Your task to perform on an android device: Go to calendar. Show me events next week Image 0: 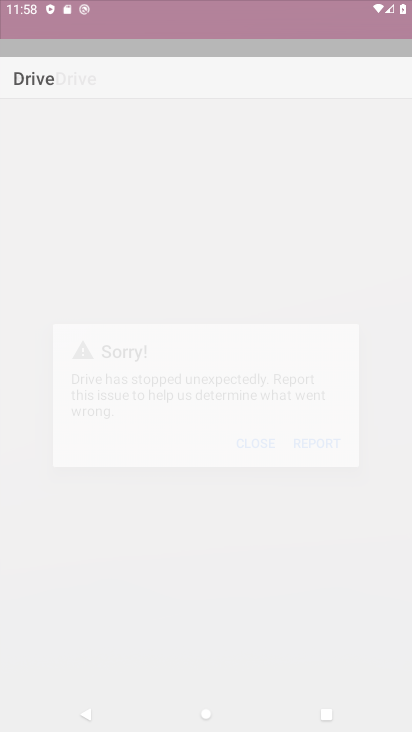
Step 0: click (357, 674)
Your task to perform on an android device: Go to calendar. Show me events next week Image 1: 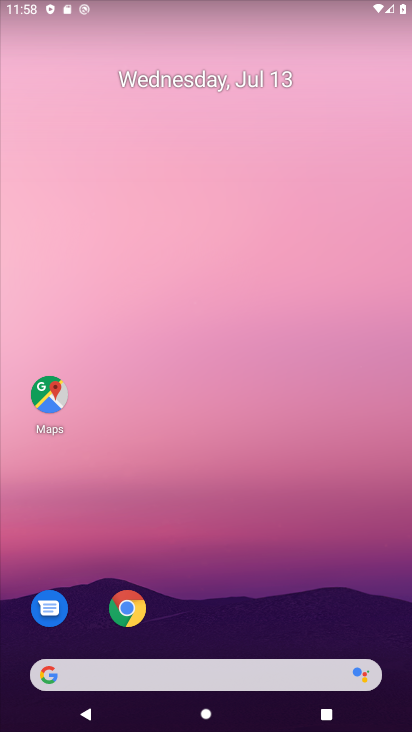
Step 1: drag from (257, 693) to (95, 23)
Your task to perform on an android device: Go to calendar. Show me events next week Image 2: 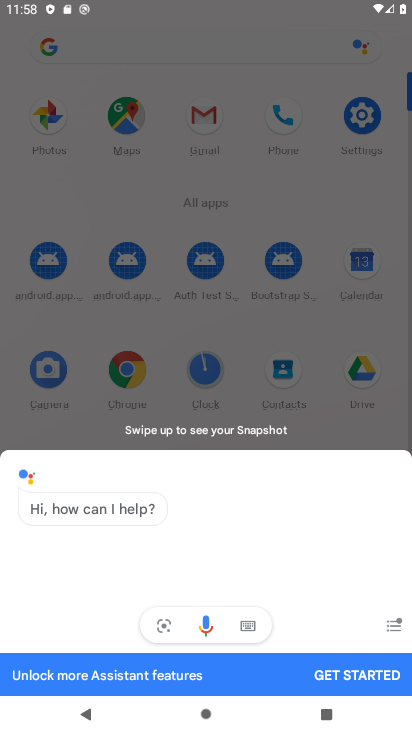
Step 2: click (230, 323)
Your task to perform on an android device: Go to calendar. Show me events next week Image 3: 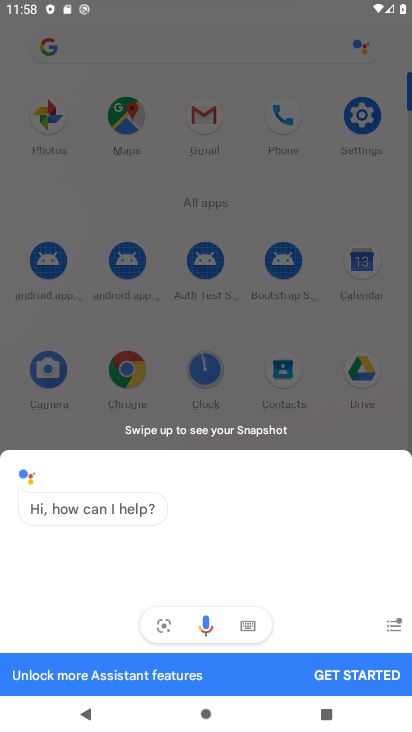
Step 3: click (232, 325)
Your task to perform on an android device: Go to calendar. Show me events next week Image 4: 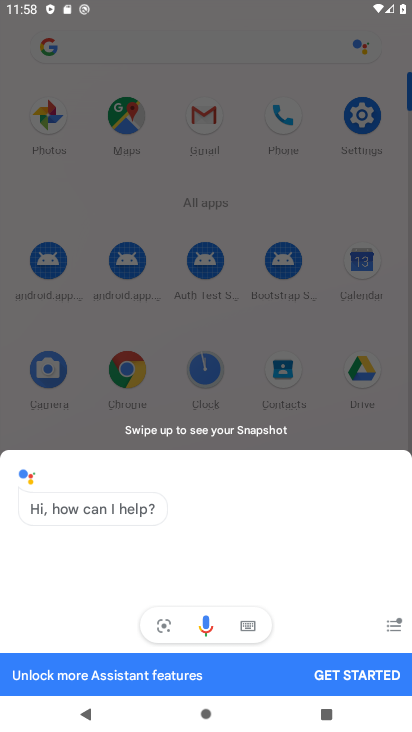
Step 4: click (232, 325)
Your task to perform on an android device: Go to calendar. Show me events next week Image 5: 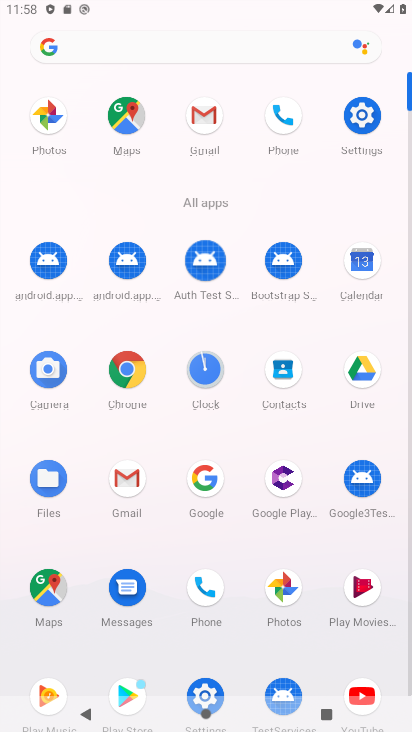
Step 5: click (234, 329)
Your task to perform on an android device: Go to calendar. Show me events next week Image 6: 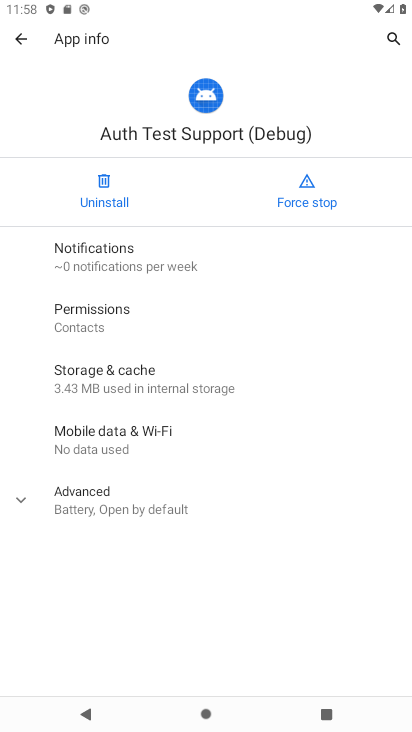
Step 6: click (23, 41)
Your task to perform on an android device: Go to calendar. Show me events next week Image 7: 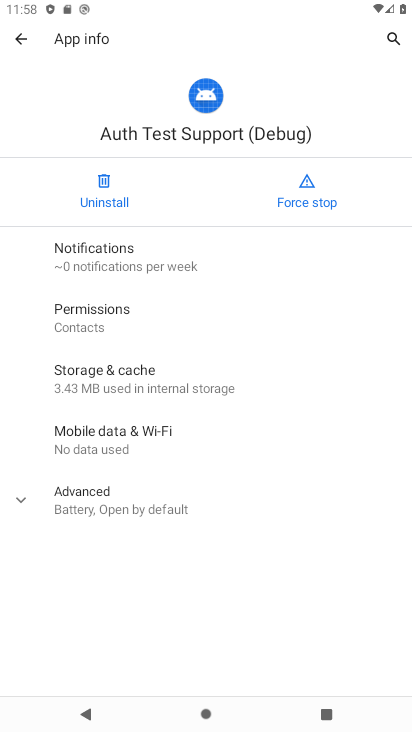
Step 7: click (23, 41)
Your task to perform on an android device: Go to calendar. Show me events next week Image 8: 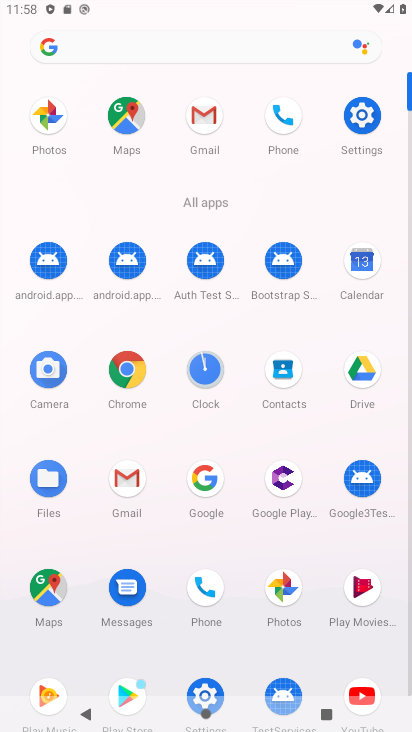
Step 8: click (357, 261)
Your task to perform on an android device: Go to calendar. Show me events next week Image 9: 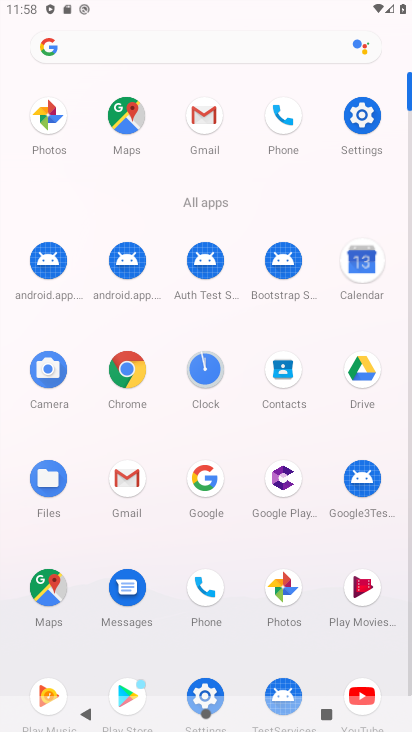
Step 9: click (358, 262)
Your task to perform on an android device: Go to calendar. Show me events next week Image 10: 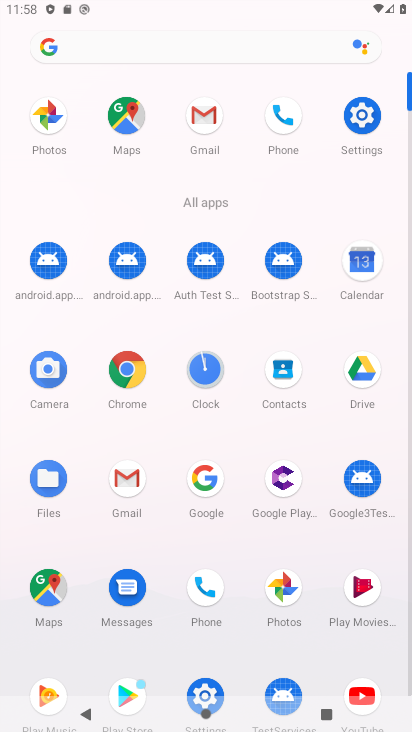
Step 10: click (359, 262)
Your task to perform on an android device: Go to calendar. Show me events next week Image 11: 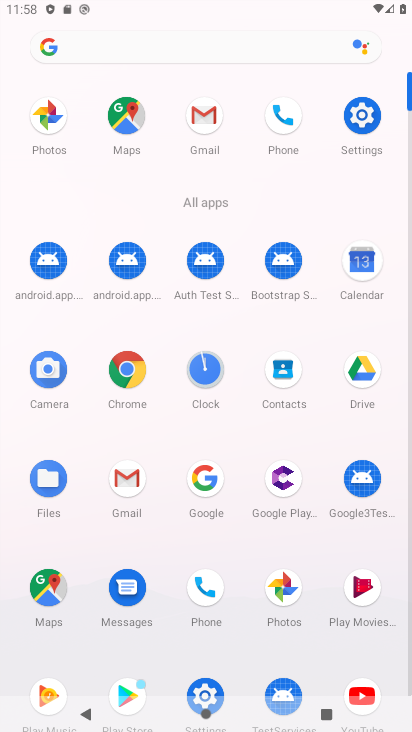
Step 11: click (360, 263)
Your task to perform on an android device: Go to calendar. Show me events next week Image 12: 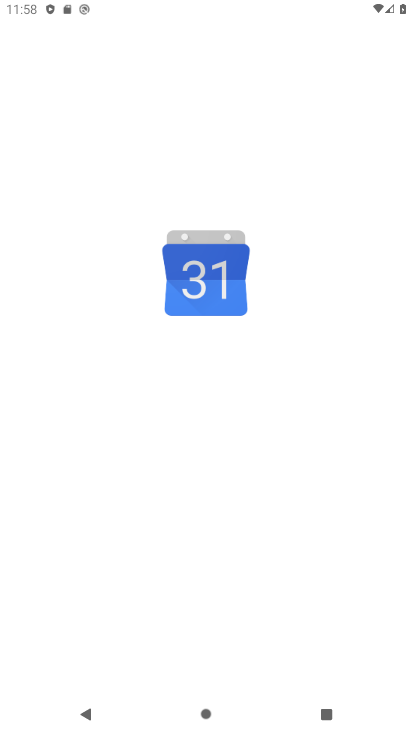
Step 12: click (361, 263)
Your task to perform on an android device: Go to calendar. Show me events next week Image 13: 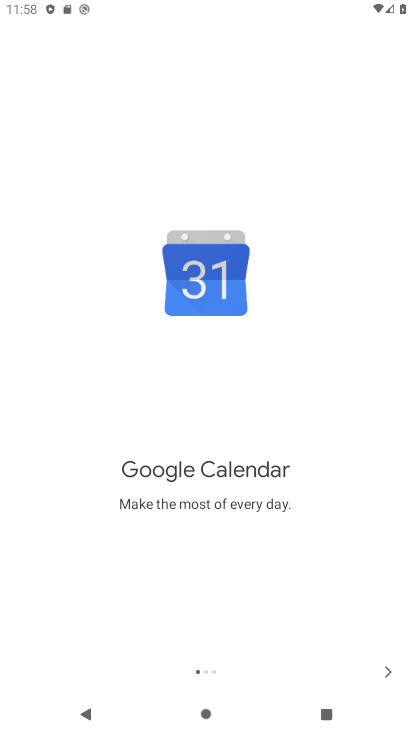
Step 13: click (386, 667)
Your task to perform on an android device: Go to calendar. Show me events next week Image 14: 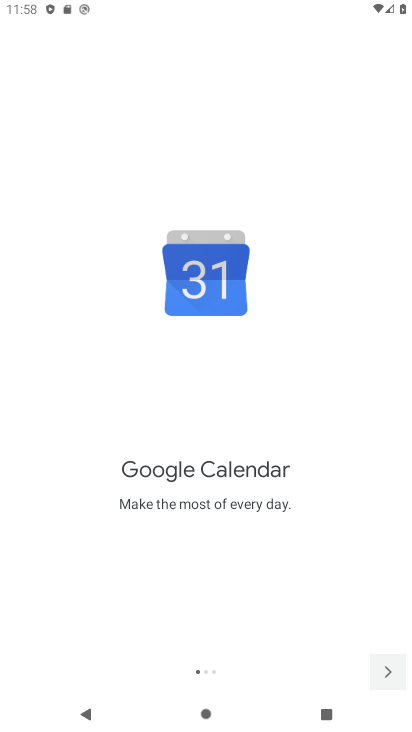
Step 14: click (386, 667)
Your task to perform on an android device: Go to calendar. Show me events next week Image 15: 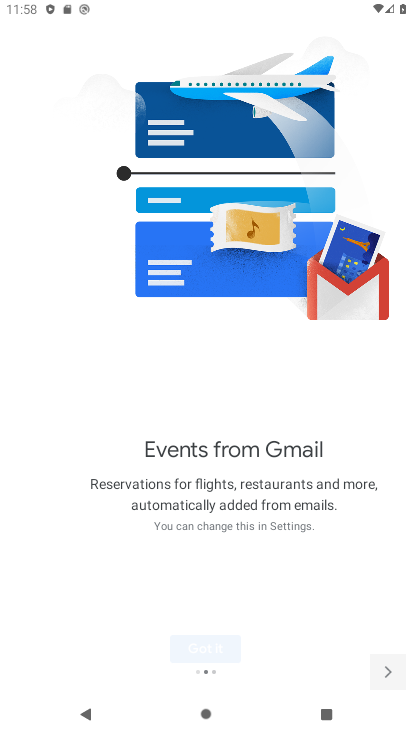
Step 15: click (386, 667)
Your task to perform on an android device: Go to calendar. Show me events next week Image 16: 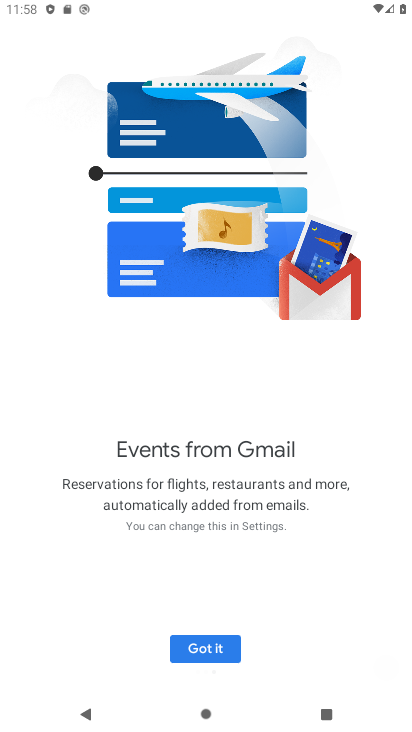
Step 16: click (386, 667)
Your task to perform on an android device: Go to calendar. Show me events next week Image 17: 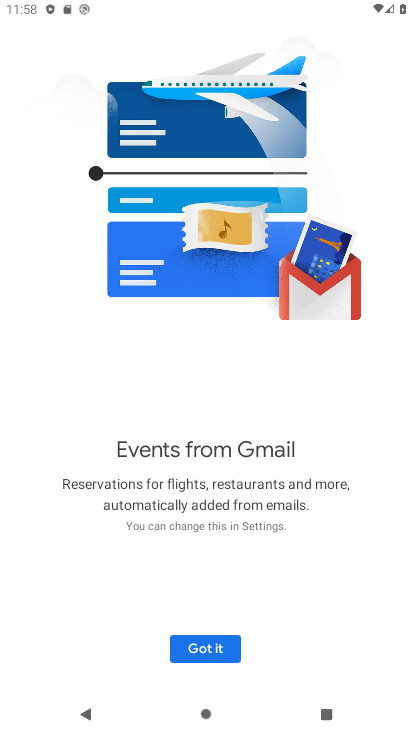
Step 17: click (386, 667)
Your task to perform on an android device: Go to calendar. Show me events next week Image 18: 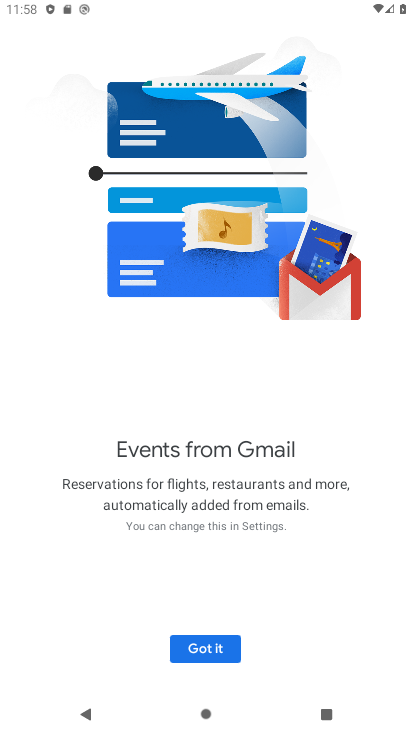
Step 18: click (386, 667)
Your task to perform on an android device: Go to calendar. Show me events next week Image 19: 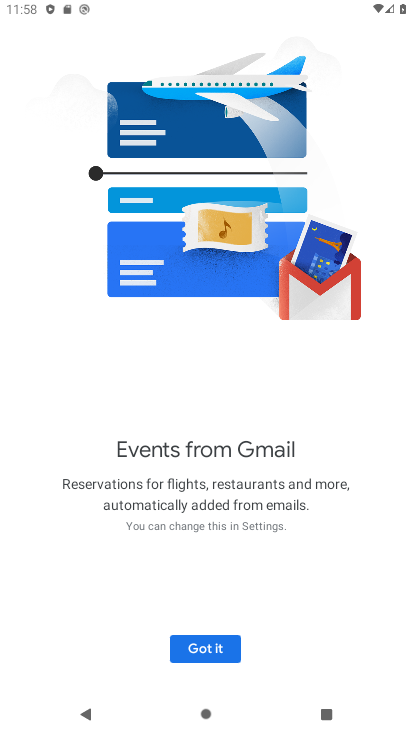
Step 19: click (189, 637)
Your task to perform on an android device: Go to calendar. Show me events next week Image 20: 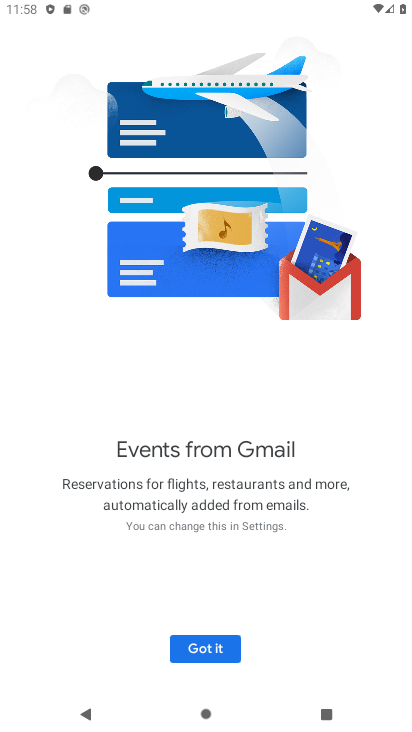
Step 20: click (189, 638)
Your task to perform on an android device: Go to calendar. Show me events next week Image 21: 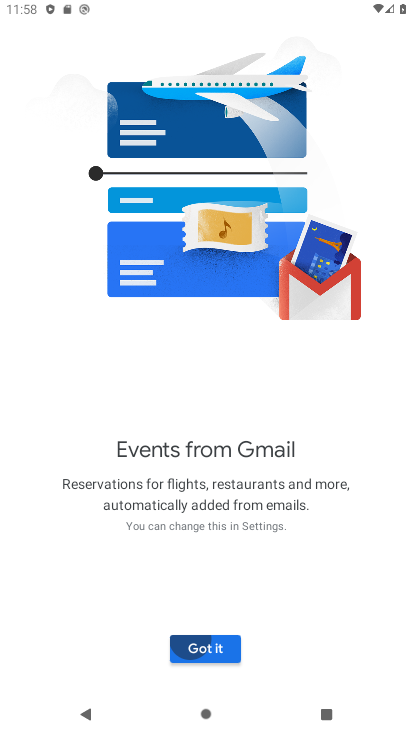
Step 21: click (198, 638)
Your task to perform on an android device: Go to calendar. Show me events next week Image 22: 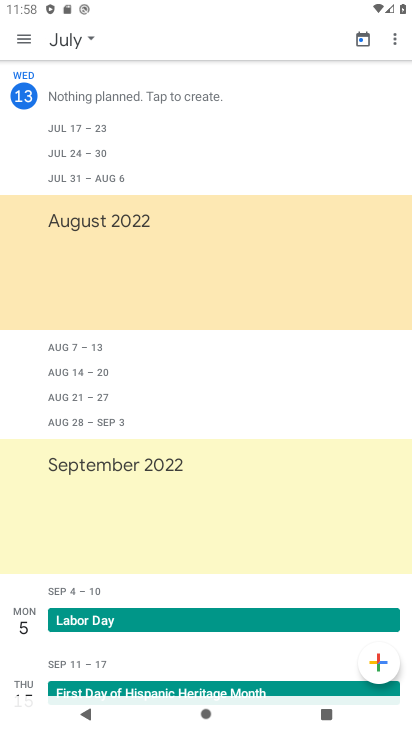
Step 22: click (90, 42)
Your task to perform on an android device: Go to calendar. Show me events next week Image 23: 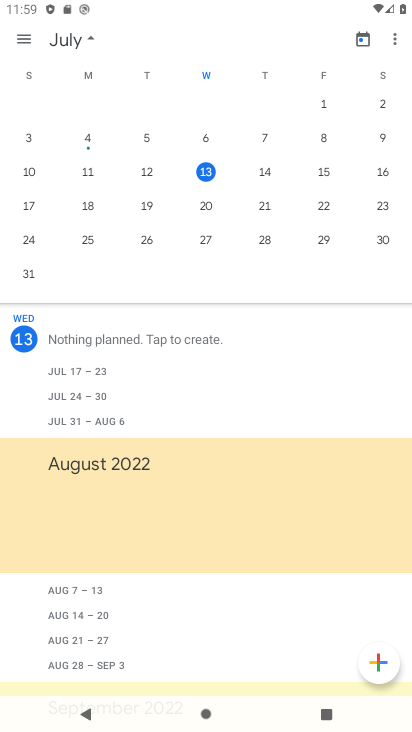
Step 23: click (209, 211)
Your task to perform on an android device: Go to calendar. Show me events next week Image 24: 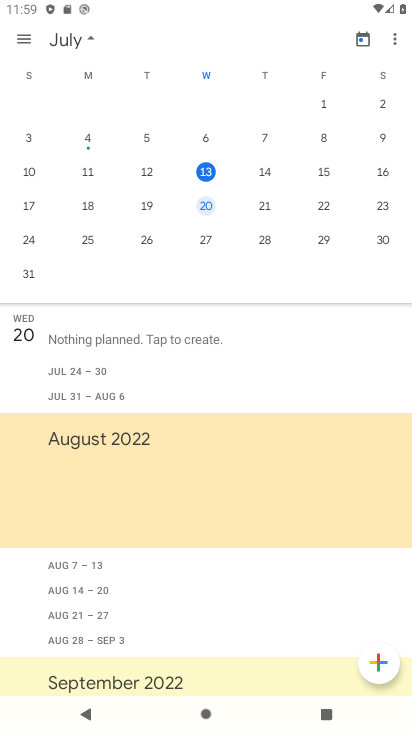
Step 24: click (210, 204)
Your task to perform on an android device: Go to calendar. Show me events next week Image 25: 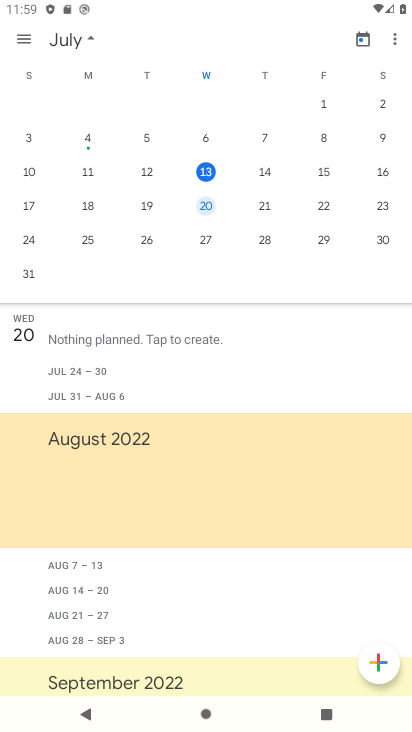
Step 25: click (211, 203)
Your task to perform on an android device: Go to calendar. Show me events next week Image 26: 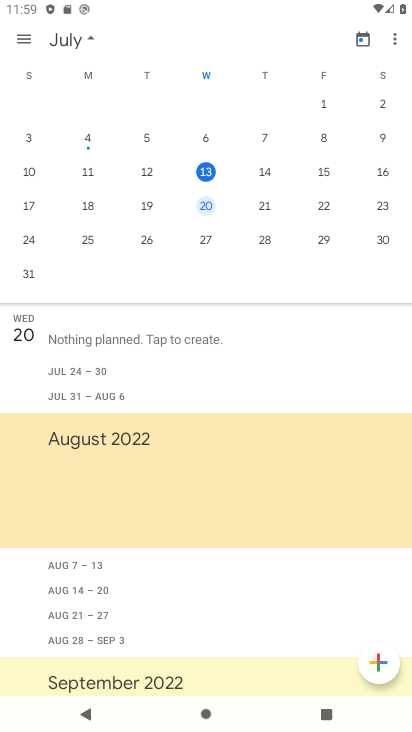
Step 26: click (211, 203)
Your task to perform on an android device: Go to calendar. Show me events next week Image 27: 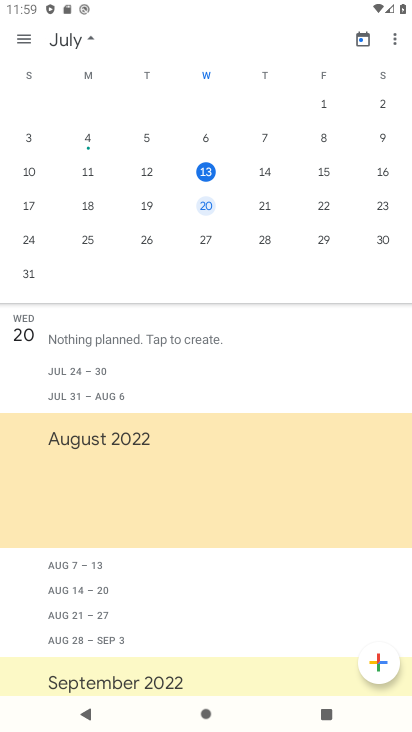
Step 27: click (211, 203)
Your task to perform on an android device: Go to calendar. Show me events next week Image 28: 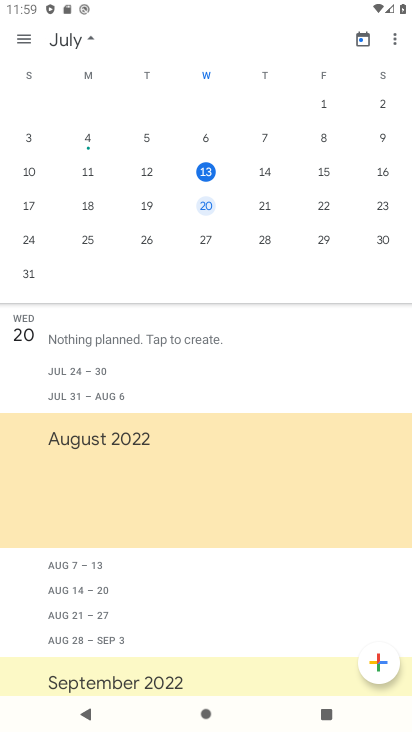
Step 28: click (20, 40)
Your task to perform on an android device: Go to calendar. Show me events next week Image 29: 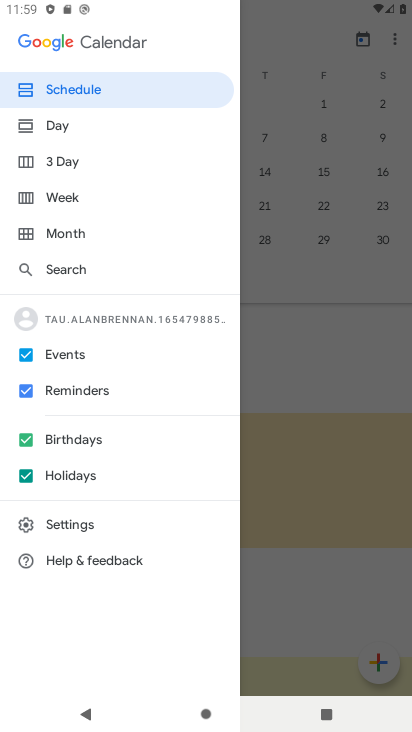
Step 29: click (66, 360)
Your task to perform on an android device: Go to calendar. Show me events next week Image 30: 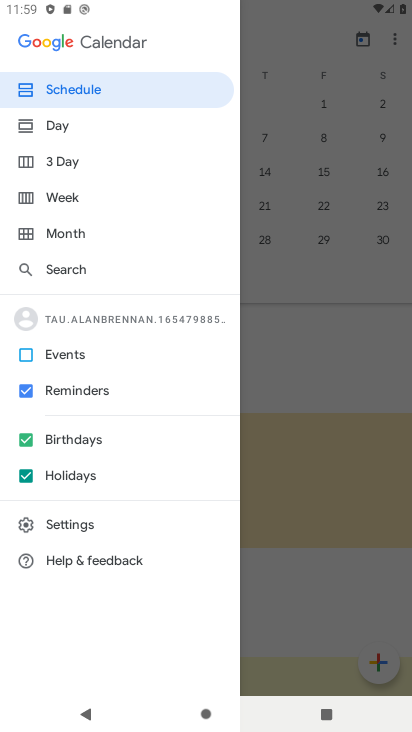
Step 30: click (57, 353)
Your task to perform on an android device: Go to calendar. Show me events next week Image 31: 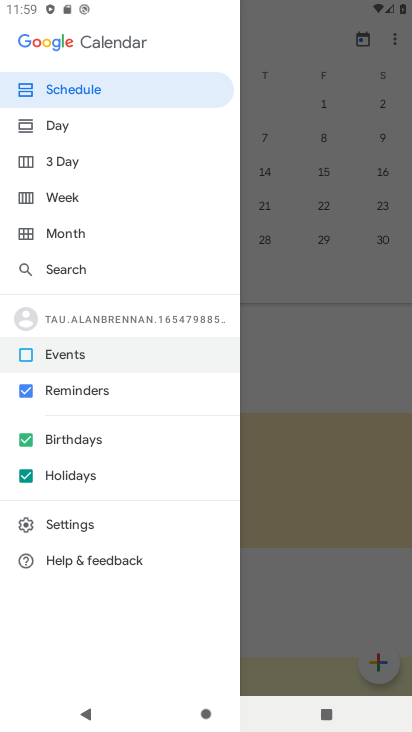
Step 31: click (57, 353)
Your task to perform on an android device: Go to calendar. Show me events next week Image 32: 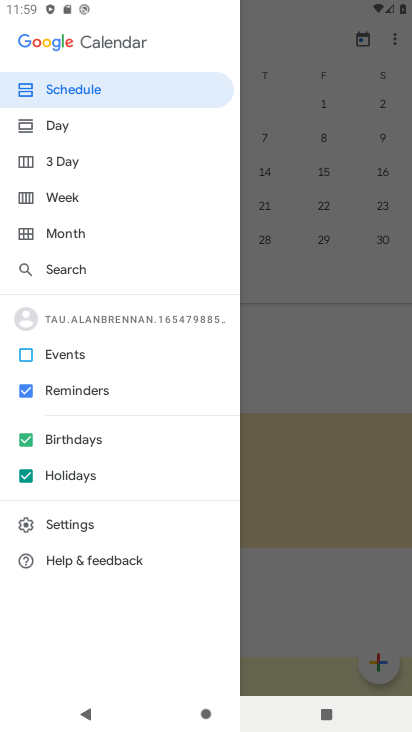
Step 32: click (28, 353)
Your task to perform on an android device: Go to calendar. Show me events next week Image 33: 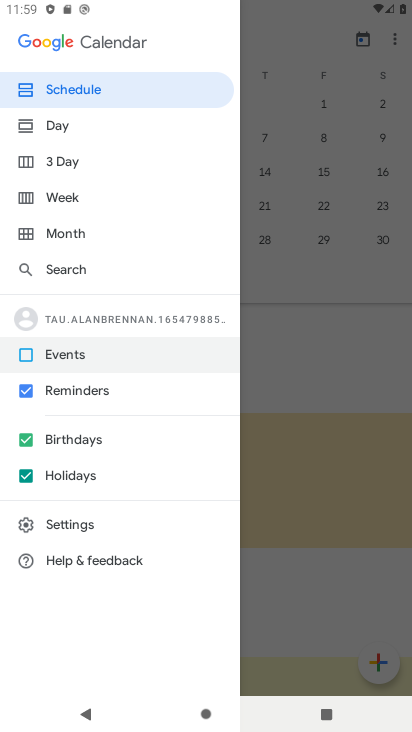
Step 33: click (27, 354)
Your task to perform on an android device: Go to calendar. Show me events next week Image 34: 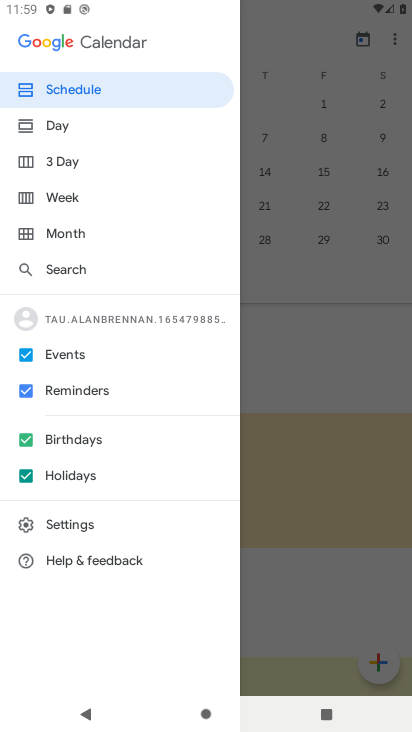
Step 34: click (335, 334)
Your task to perform on an android device: Go to calendar. Show me events next week Image 35: 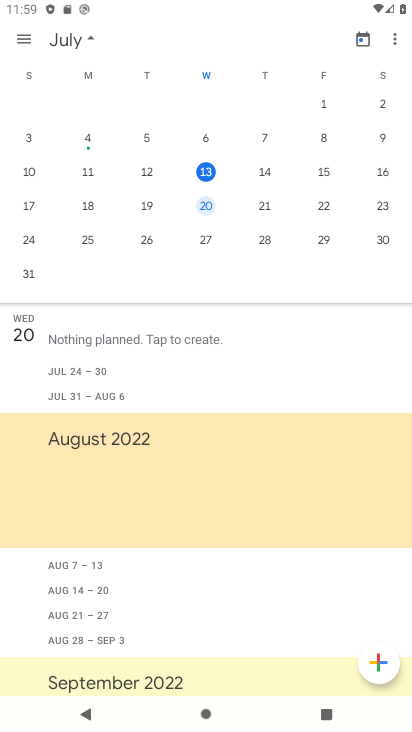
Step 35: task complete